Your task to perform on an android device: Search for vegetarian restaurants on Maps Image 0: 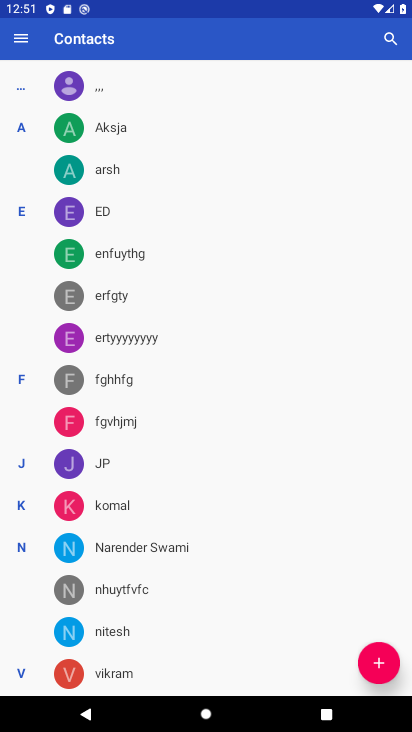
Step 0: press home button
Your task to perform on an android device: Search for vegetarian restaurants on Maps Image 1: 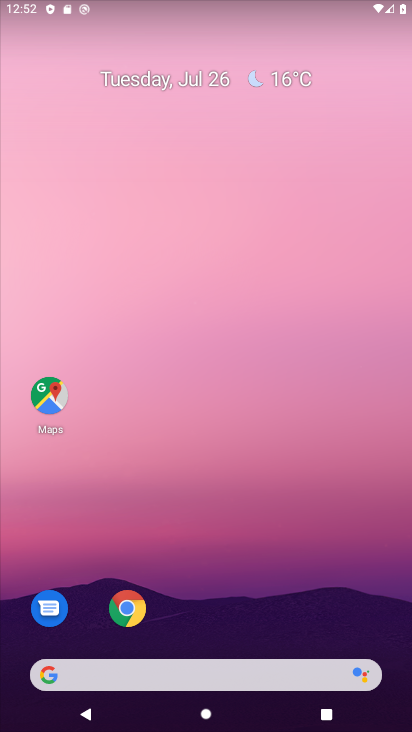
Step 1: drag from (345, 654) to (239, 16)
Your task to perform on an android device: Search for vegetarian restaurants on Maps Image 2: 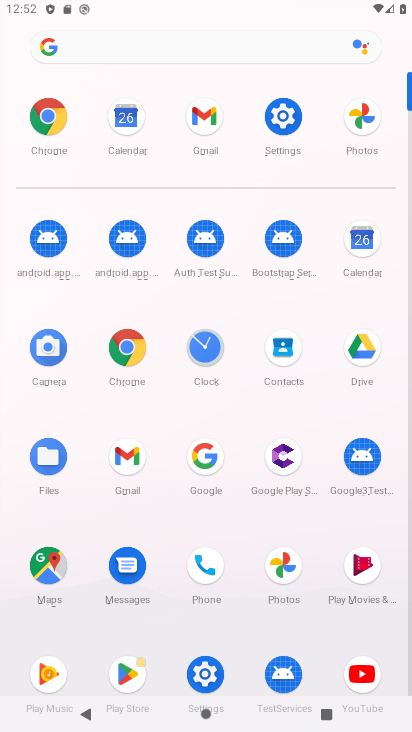
Step 2: click (33, 560)
Your task to perform on an android device: Search for vegetarian restaurants on Maps Image 3: 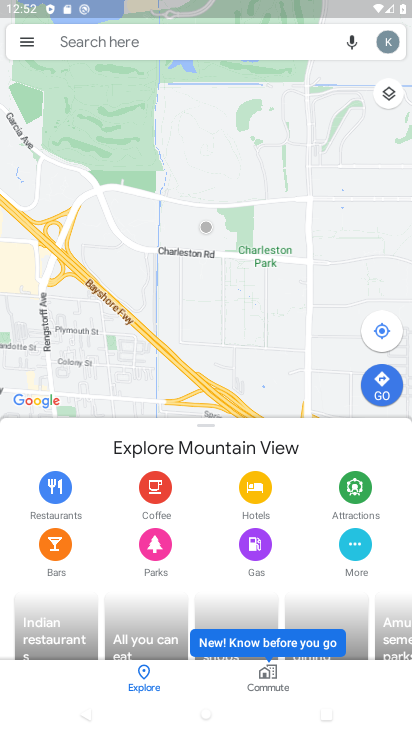
Step 3: click (209, 54)
Your task to perform on an android device: Search for vegetarian restaurants on Maps Image 4: 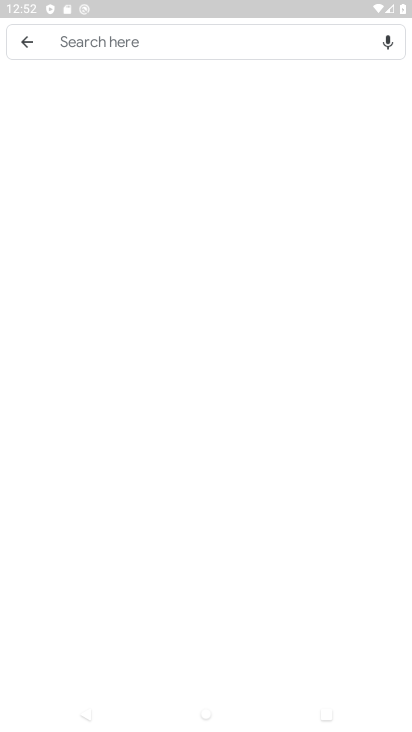
Step 4: click (198, 45)
Your task to perform on an android device: Search for vegetarian restaurants on Maps Image 5: 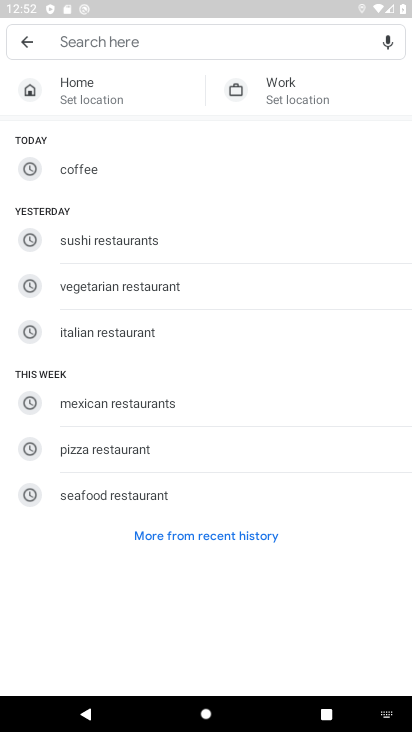
Step 5: type "vegetr"
Your task to perform on an android device: Search for vegetarian restaurants on Maps Image 6: 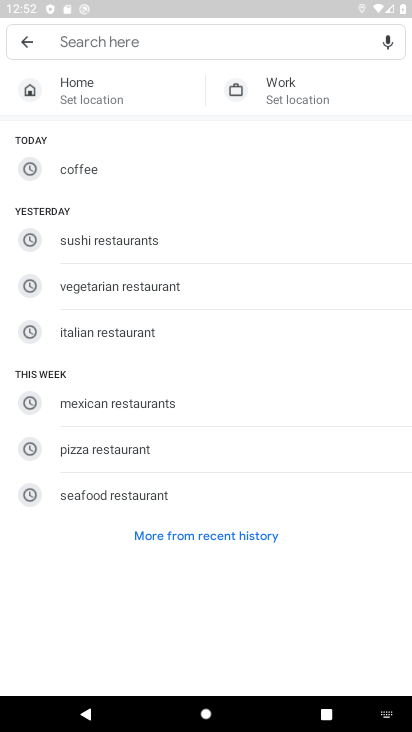
Step 6: click (231, 292)
Your task to perform on an android device: Search for vegetarian restaurants on Maps Image 7: 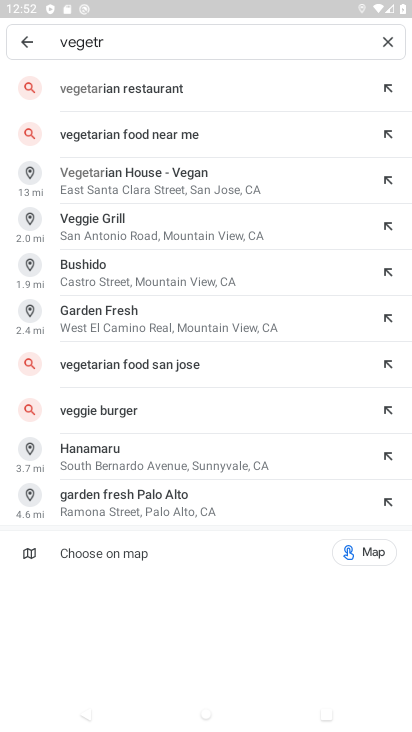
Step 7: click (203, 100)
Your task to perform on an android device: Search for vegetarian restaurants on Maps Image 8: 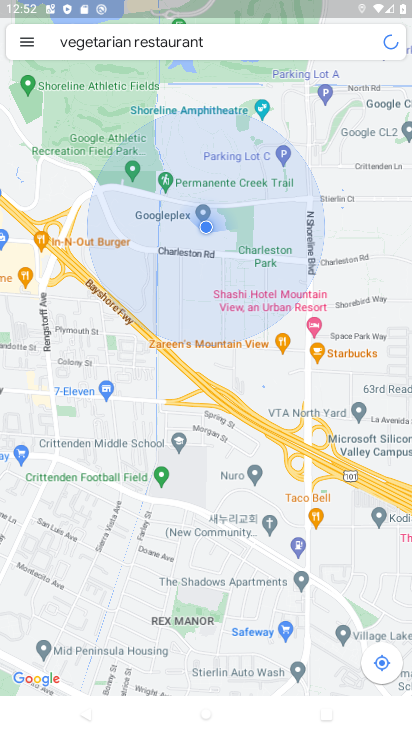
Step 8: task complete